Your task to perform on an android device: toggle javascript in the chrome app Image 0: 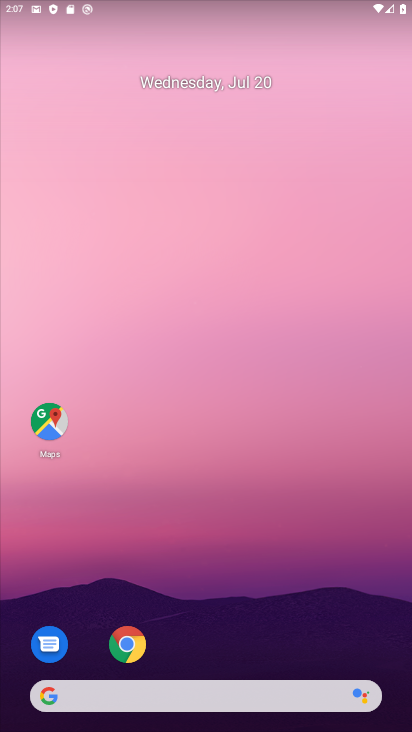
Step 0: drag from (274, 591) to (305, 25)
Your task to perform on an android device: toggle javascript in the chrome app Image 1: 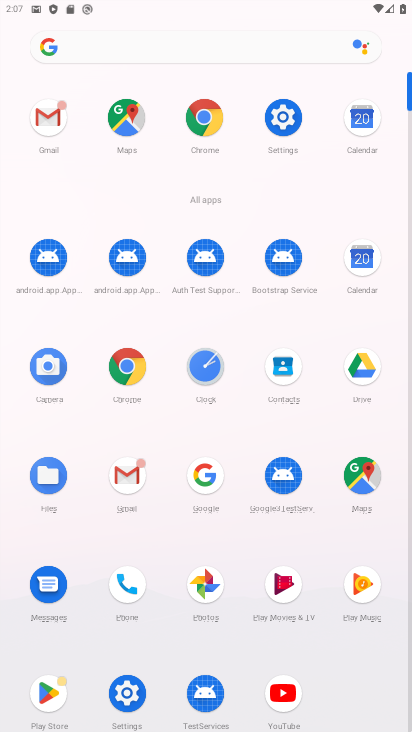
Step 1: click (181, 141)
Your task to perform on an android device: toggle javascript in the chrome app Image 2: 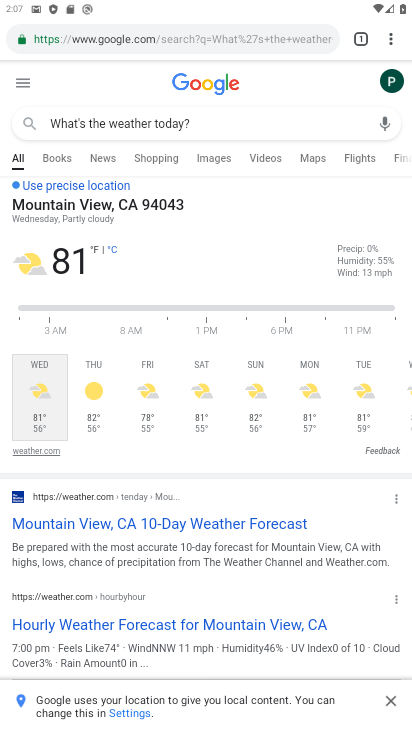
Step 2: drag from (386, 40) to (263, 429)
Your task to perform on an android device: toggle javascript in the chrome app Image 3: 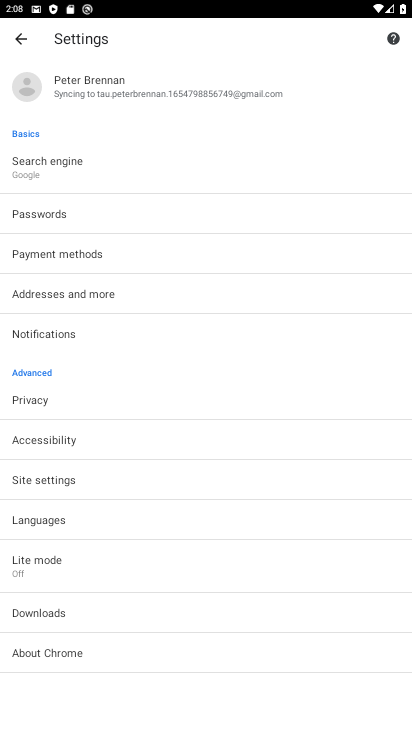
Step 3: click (47, 483)
Your task to perform on an android device: toggle javascript in the chrome app Image 4: 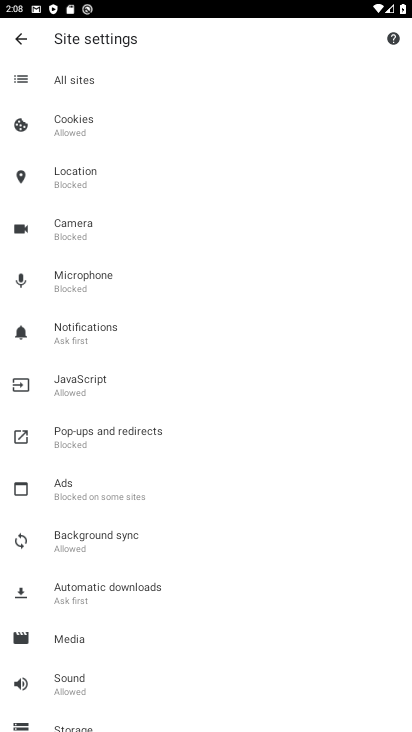
Step 4: click (66, 385)
Your task to perform on an android device: toggle javascript in the chrome app Image 5: 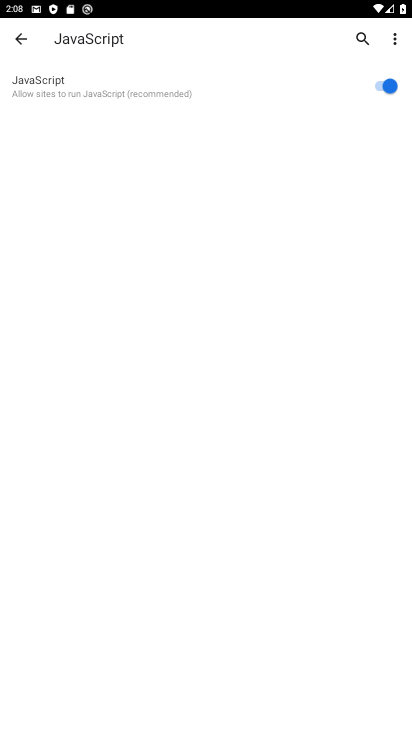
Step 5: click (383, 91)
Your task to perform on an android device: toggle javascript in the chrome app Image 6: 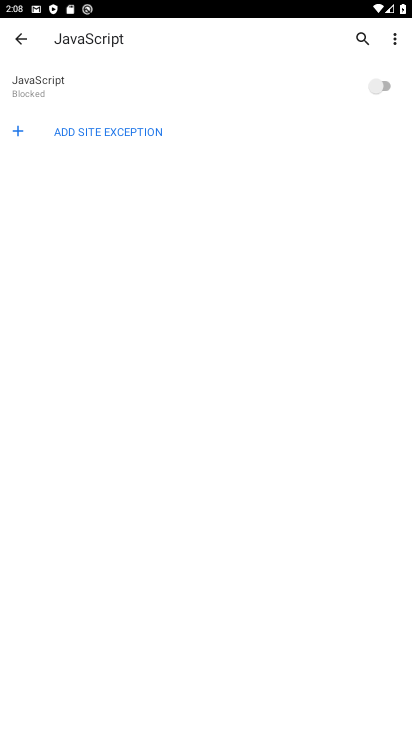
Step 6: task complete